Your task to perform on an android device: Go to settings Image 0: 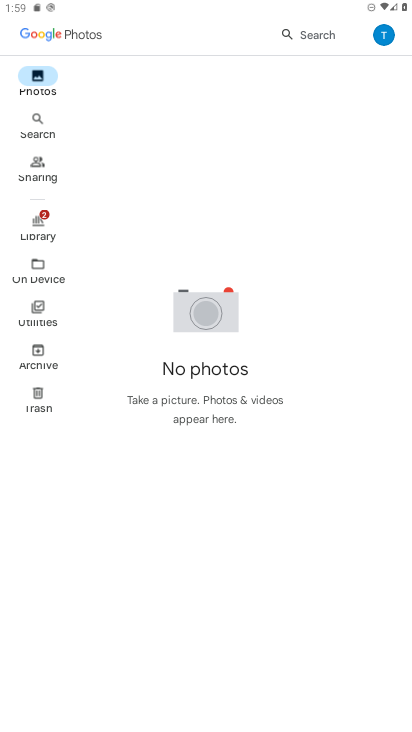
Step 0: press home button
Your task to perform on an android device: Go to settings Image 1: 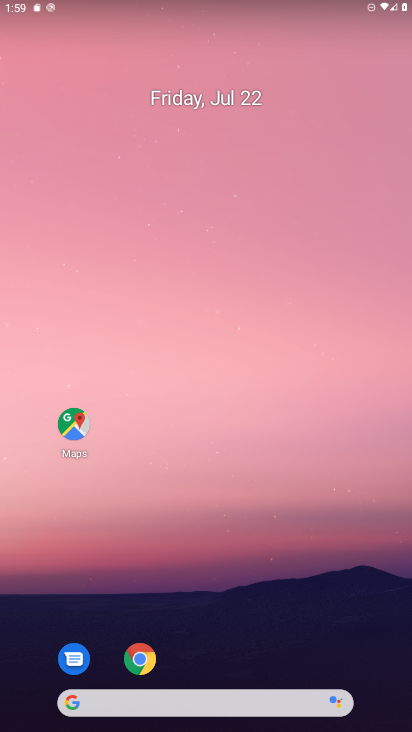
Step 1: drag from (190, 700) to (230, 67)
Your task to perform on an android device: Go to settings Image 2: 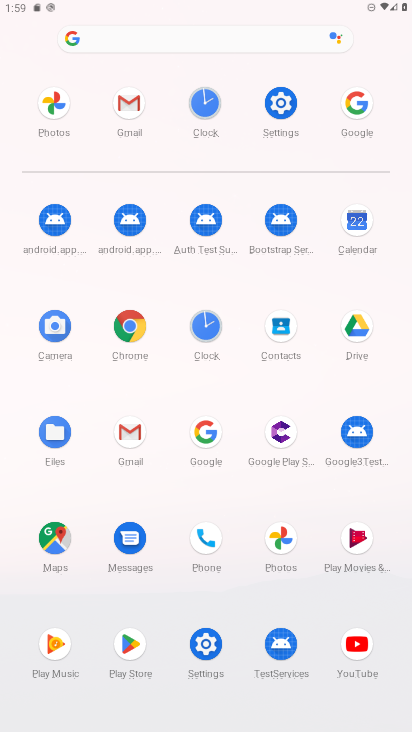
Step 2: click (282, 104)
Your task to perform on an android device: Go to settings Image 3: 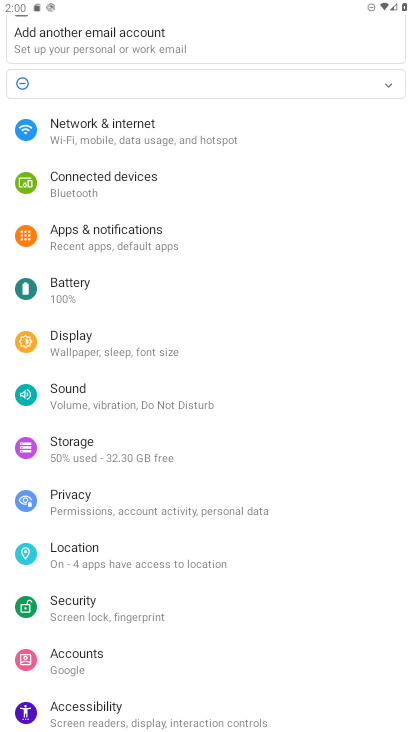
Step 3: task complete